Your task to perform on an android device: Open Wikipedia Image 0: 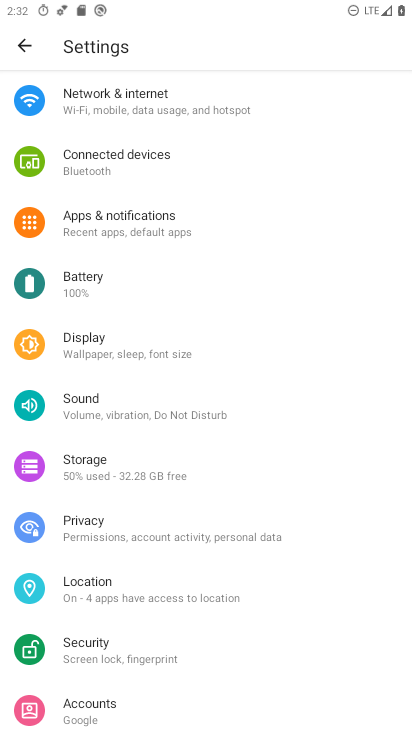
Step 0: press home button
Your task to perform on an android device: Open Wikipedia Image 1: 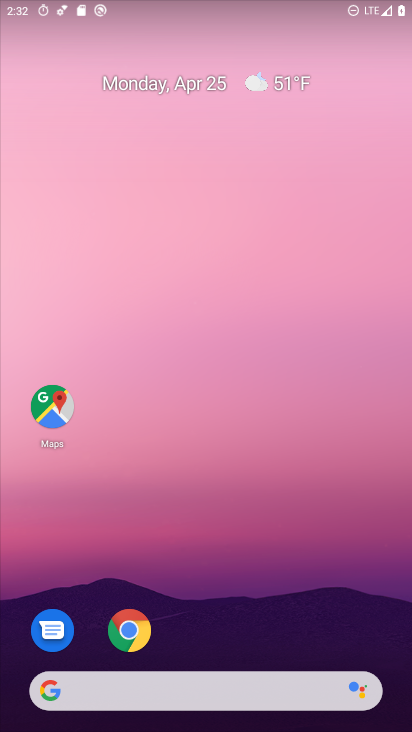
Step 1: drag from (201, 592) to (242, 436)
Your task to perform on an android device: Open Wikipedia Image 2: 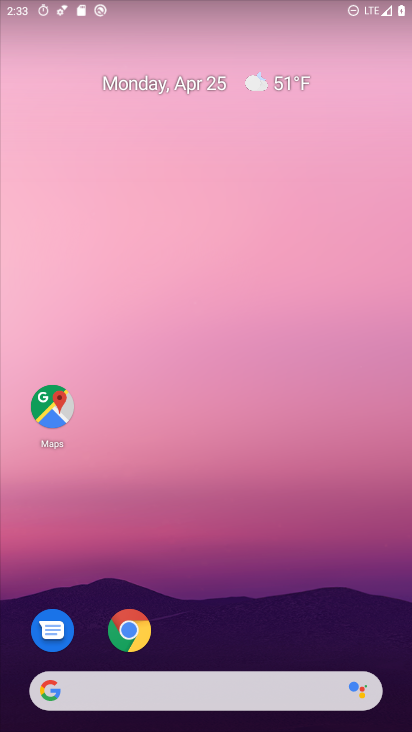
Step 2: drag from (174, 632) to (182, 391)
Your task to perform on an android device: Open Wikipedia Image 3: 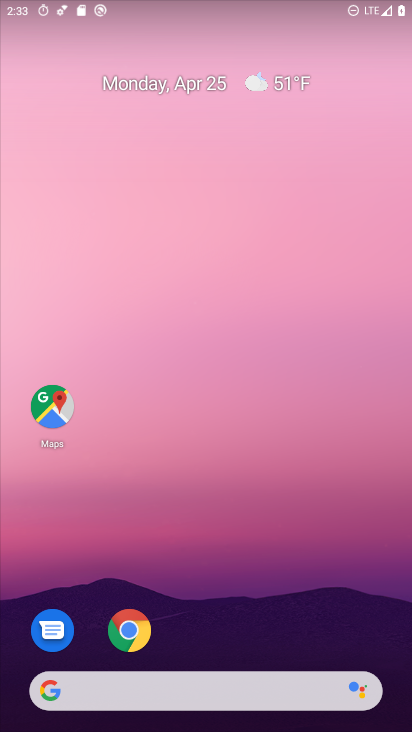
Step 3: drag from (229, 646) to (294, 363)
Your task to perform on an android device: Open Wikipedia Image 4: 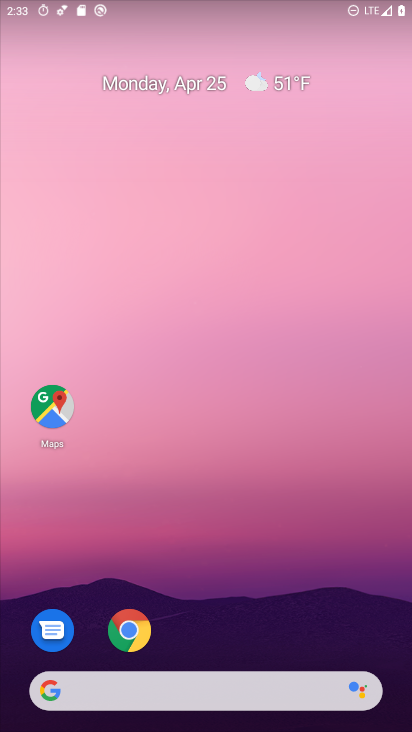
Step 4: drag from (191, 553) to (157, 0)
Your task to perform on an android device: Open Wikipedia Image 5: 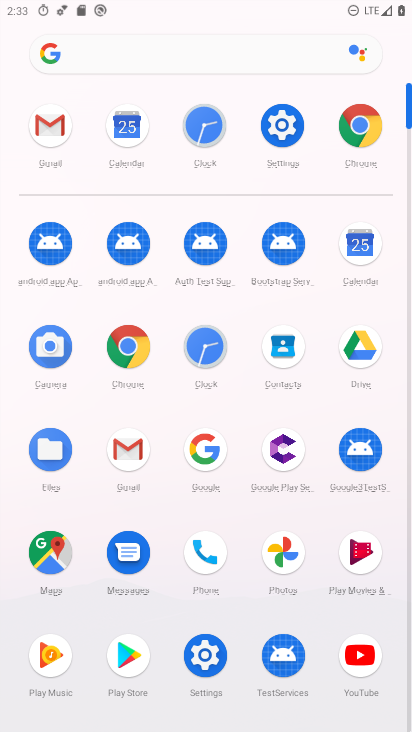
Step 5: click (353, 124)
Your task to perform on an android device: Open Wikipedia Image 6: 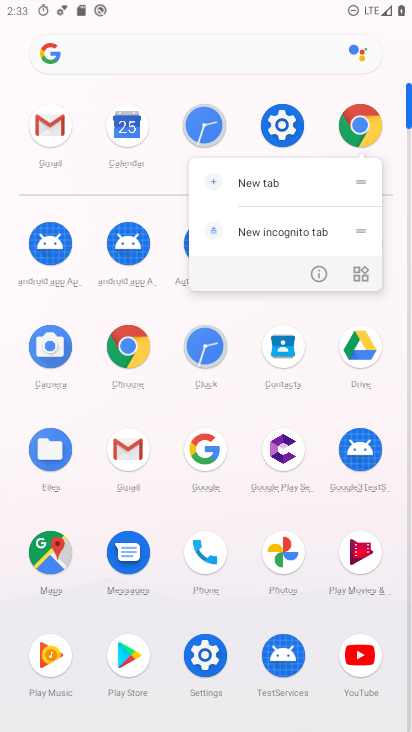
Step 6: click (317, 277)
Your task to perform on an android device: Open Wikipedia Image 7: 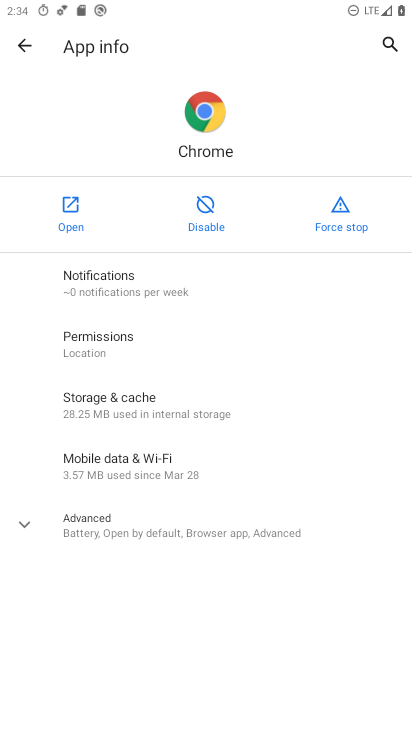
Step 7: click (40, 201)
Your task to perform on an android device: Open Wikipedia Image 8: 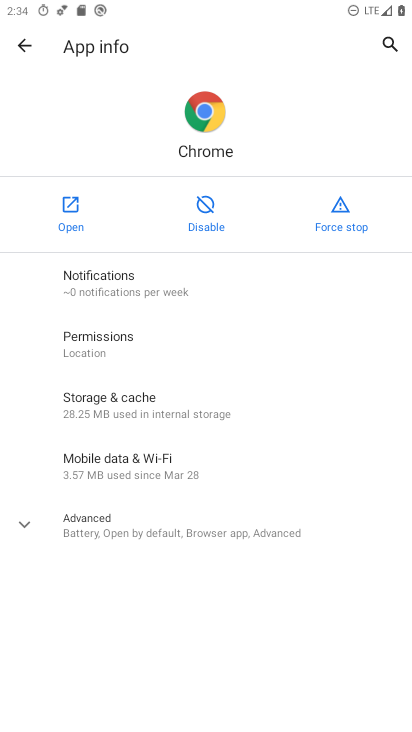
Step 8: click (59, 206)
Your task to perform on an android device: Open Wikipedia Image 9: 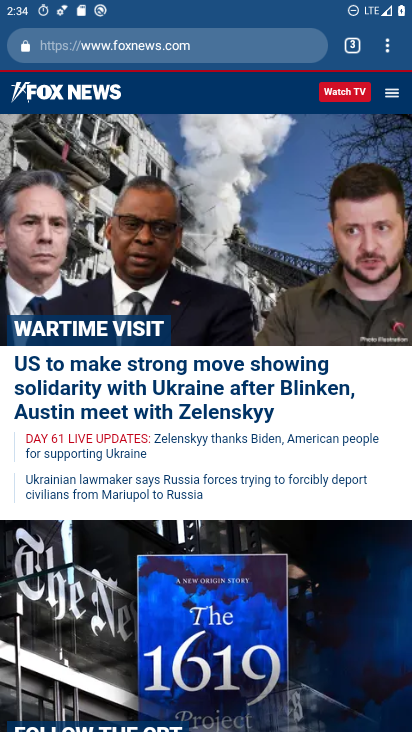
Step 9: click (137, 49)
Your task to perform on an android device: Open Wikipedia Image 10: 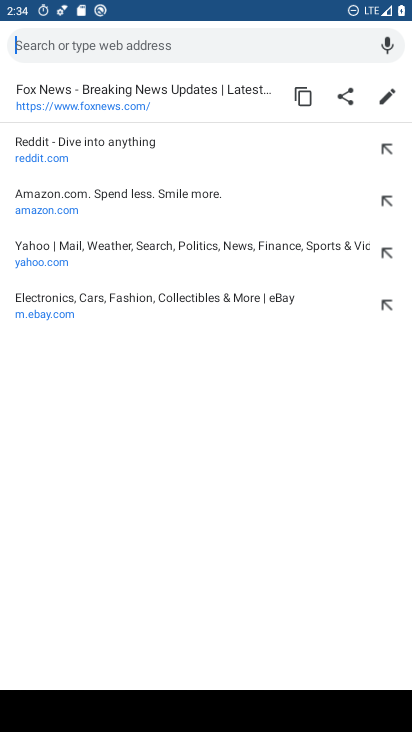
Step 10: type "wikipedia"
Your task to perform on an android device: Open Wikipedia Image 11: 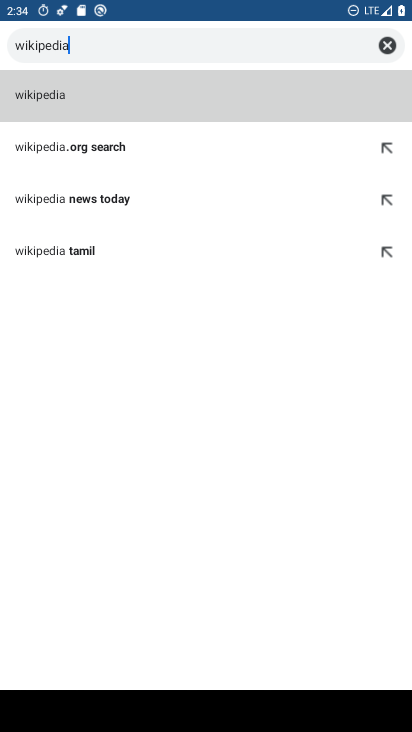
Step 11: click (36, 105)
Your task to perform on an android device: Open Wikipedia Image 12: 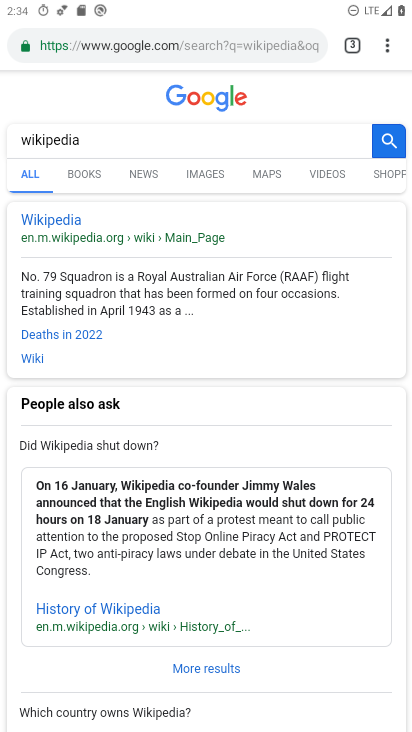
Step 12: click (57, 230)
Your task to perform on an android device: Open Wikipedia Image 13: 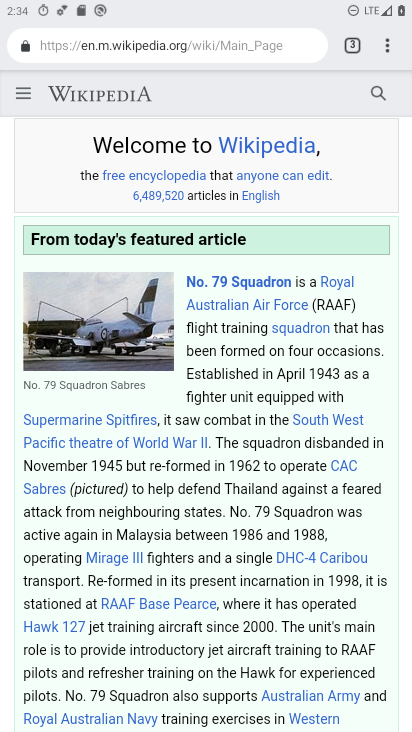
Step 13: task complete